Your task to perform on an android device: turn off picture-in-picture Image 0: 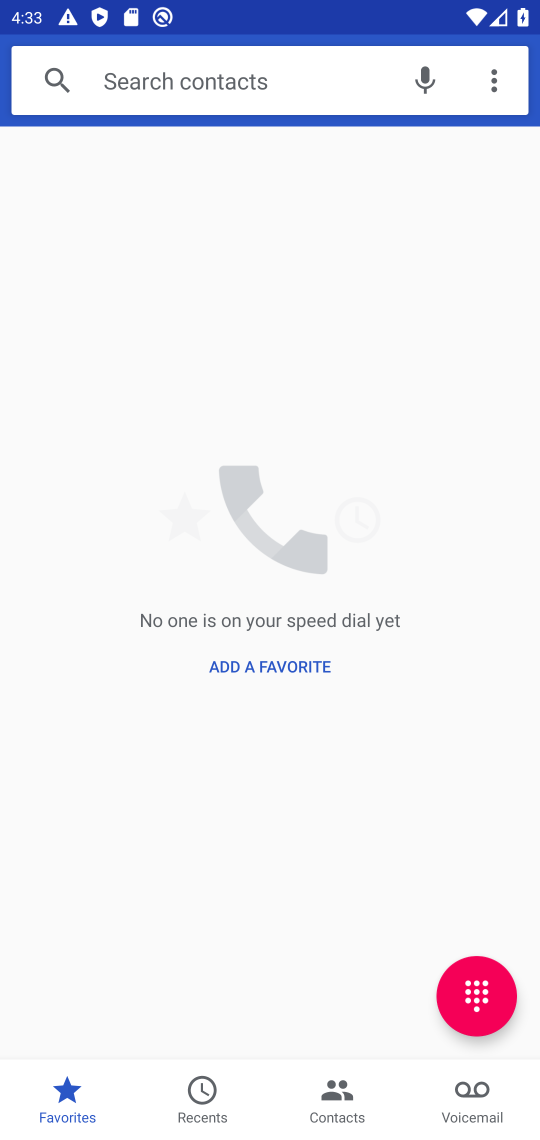
Step 0: press back button
Your task to perform on an android device: turn off picture-in-picture Image 1: 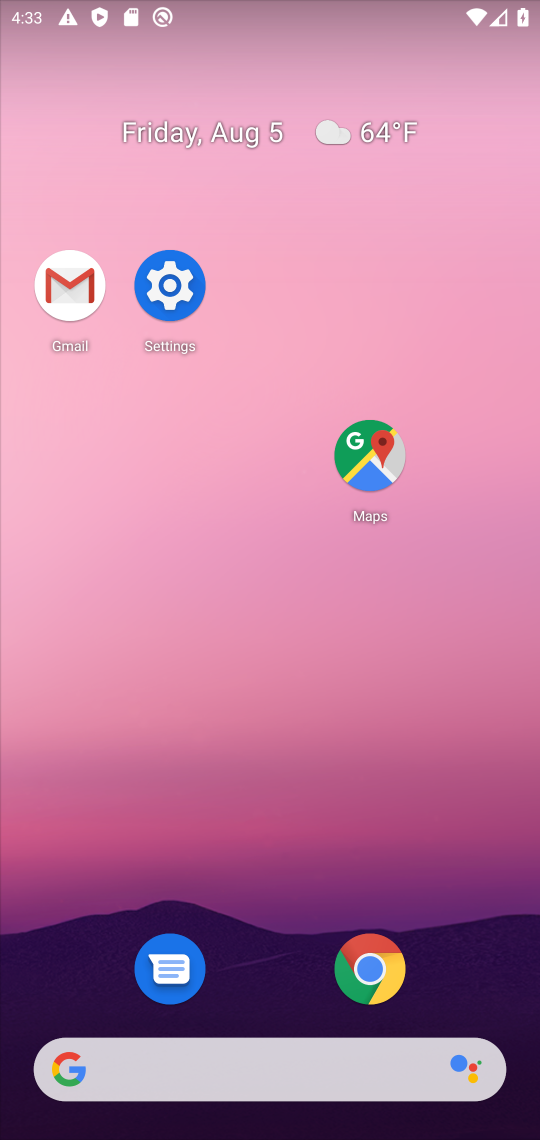
Step 1: click (374, 966)
Your task to perform on an android device: turn off picture-in-picture Image 2: 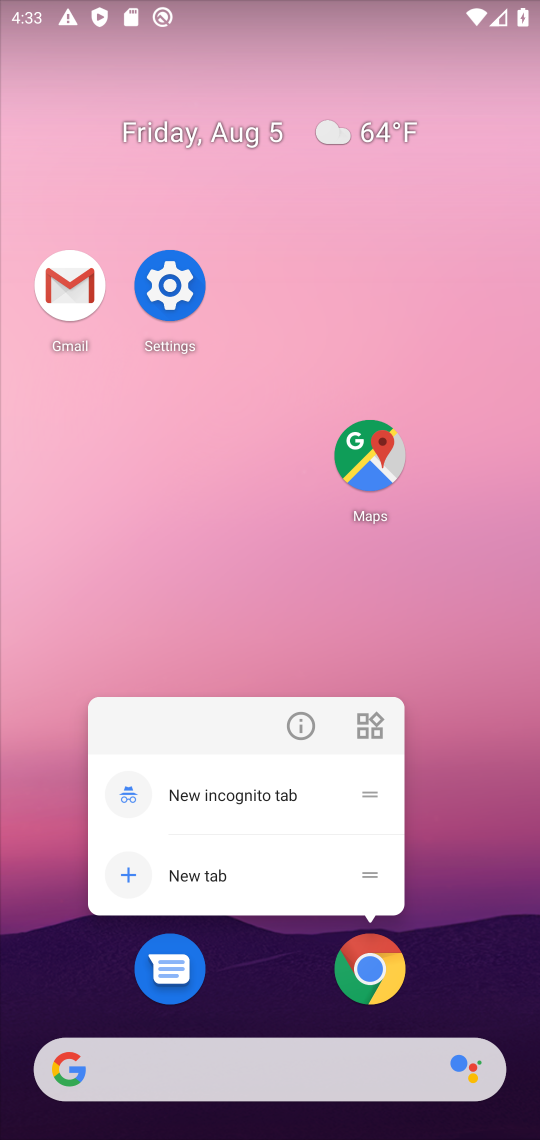
Step 2: click (296, 730)
Your task to perform on an android device: turn off picture-in-picture Image 3: 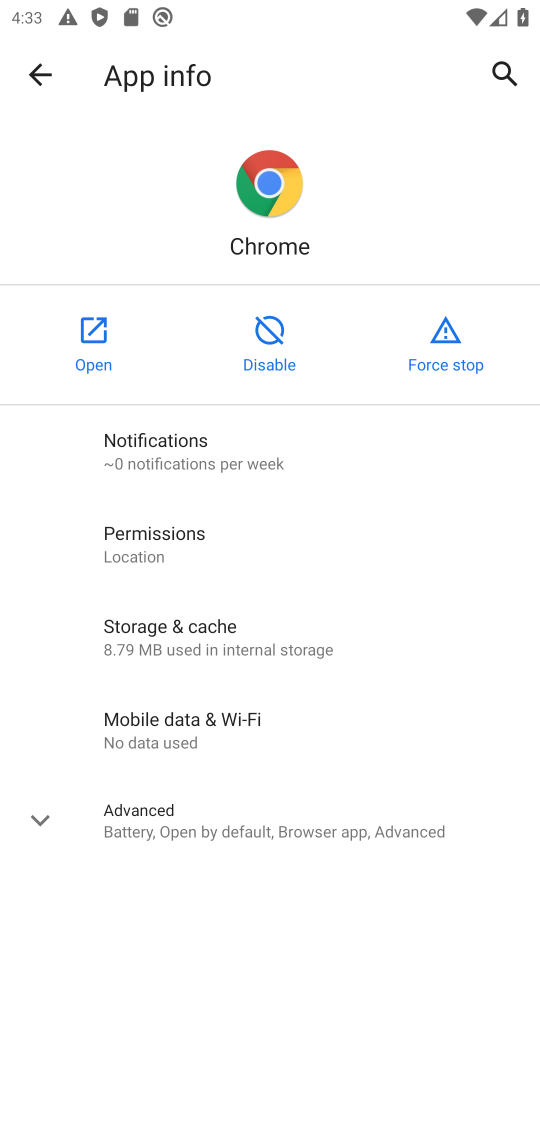
Step 3: click (393, 826)
Your task to perform on an android device: turn off picture-in-picture Image 4: 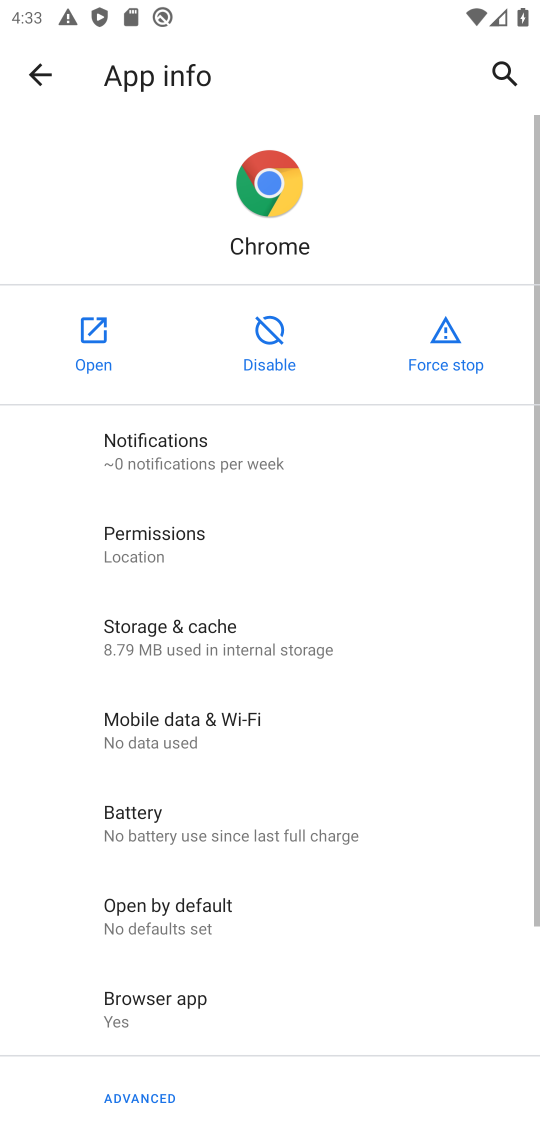
Step 4: task complete